Your task to perform on an android device: change keyboard looks Image 0: 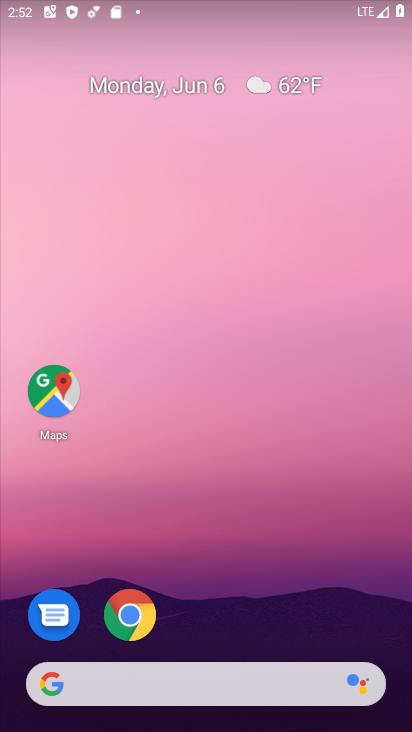
Step 0: drag from (202, 681) to (308, 17)
Your task to perform on an android device: change keyboard looks Image 1: 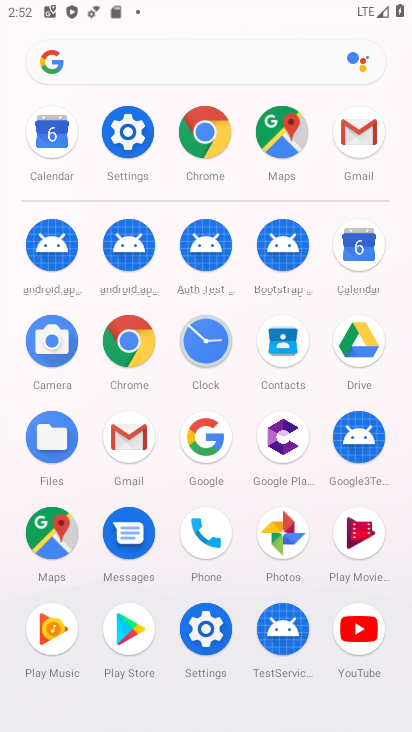
Step 1: click (112, 118)
Your task to perform on an android device: change keyboard looks Image 2: 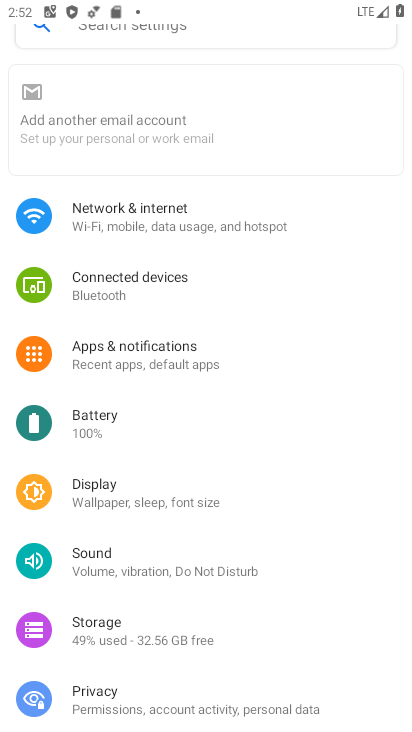
Step 2: drag from (232, 658) to (244, 65)
Your task to perform on an android device: change keyboard looks Image 3: 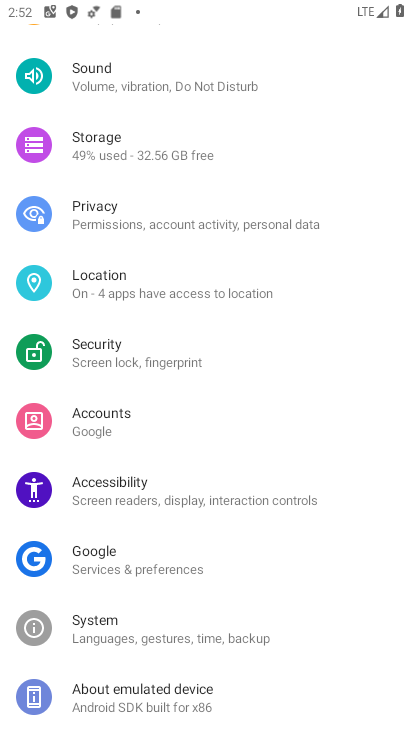
Step 3: click (133, 624)
Your task to perform on an android device: change keyboard looks Image 4: 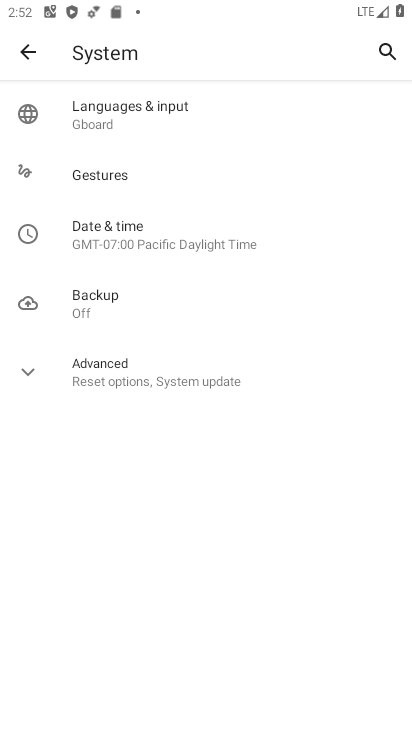
Step 4: click (159, 110)
Your task to perform on an android device: change keyboard looks Image 5: 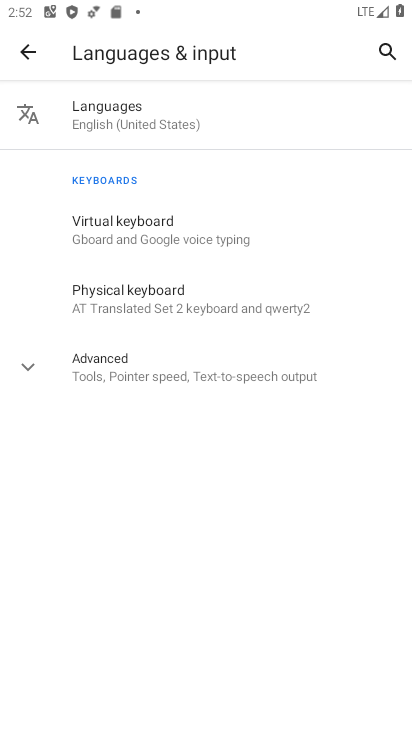
Step 5: click (153, 223)
Your task to perform on an android device: change keyboard looks Image 6: 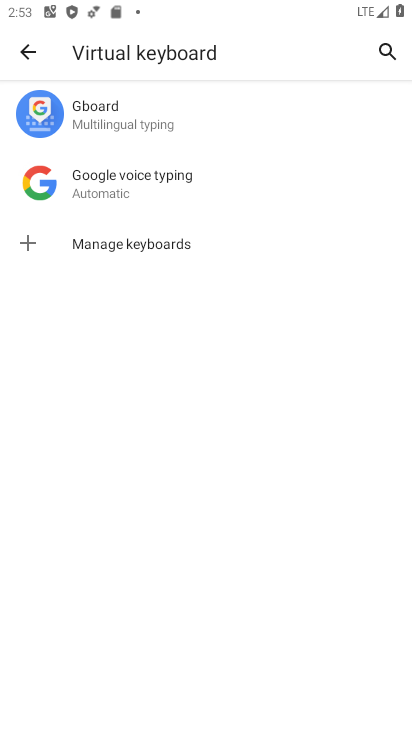
Step 6: click (133, 129)
Your task to perform on an android device: change keyboard looks Image 7: 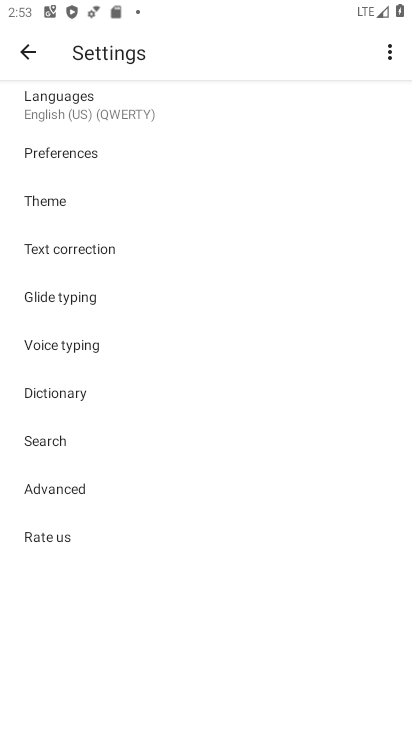
Step 7: click (13, 199)
Your task to perform on an android device: change keyboard looks Image 8: 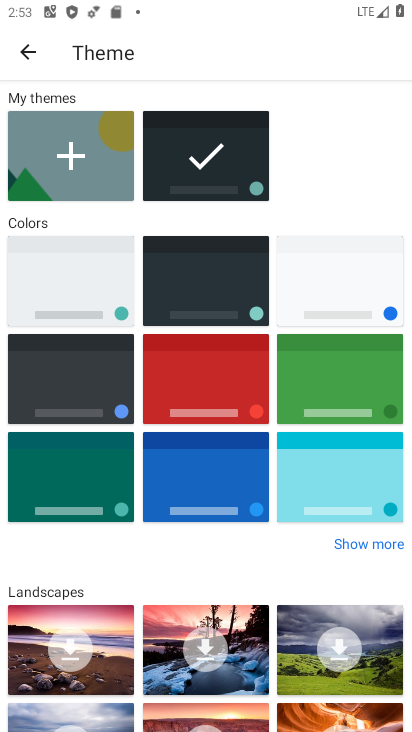
Step 8: click (311, 363)
Your task to perform on an android device: change keyboard looks Image 9: 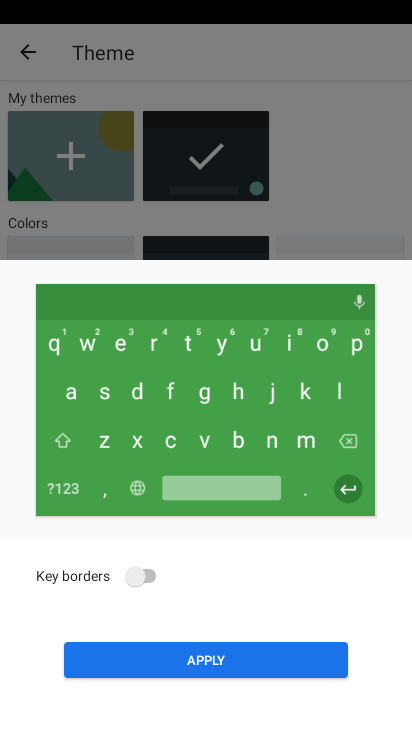
Step 9: click (200, 659)
Your task to perform on an android device: change keyboard looks Image 10: 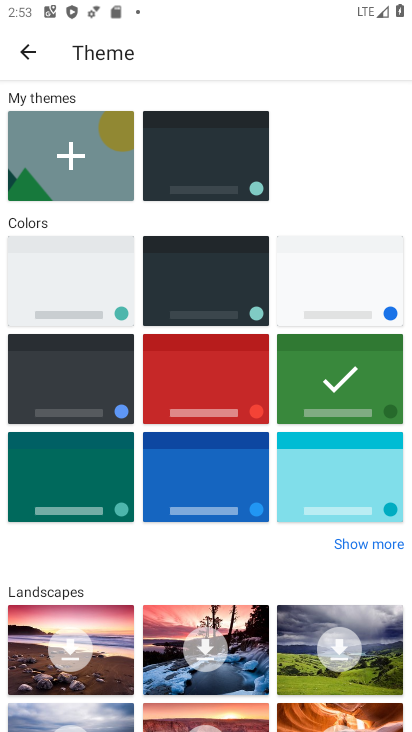
Step 10: task complete